Your task to perform on an android device: Is it going to rain this weekend? Image 0: 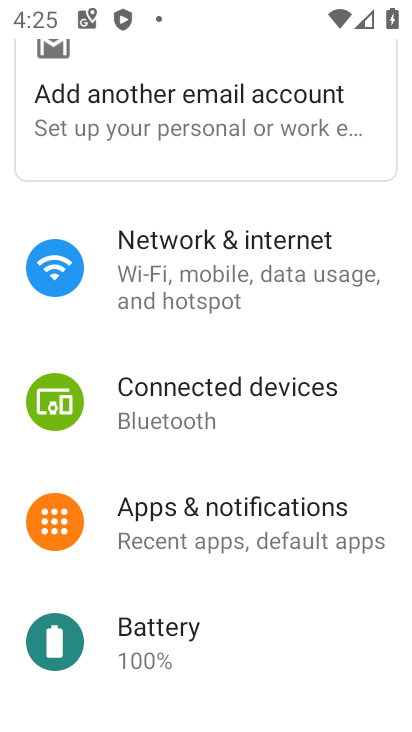
Step 0: press home button
Your task to perform on an android device: Is it going to rain this weekend? Image 1: 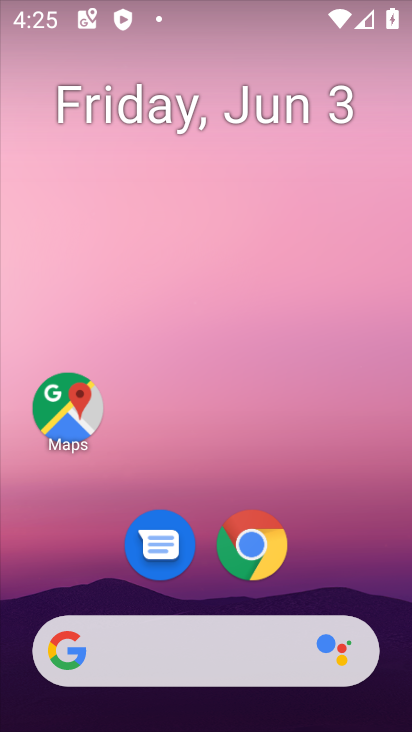
Step 1: drag from (4, 285) to (382, 276)
Your task to perform on an android device: Is it going to rain this weekend? Image 2: 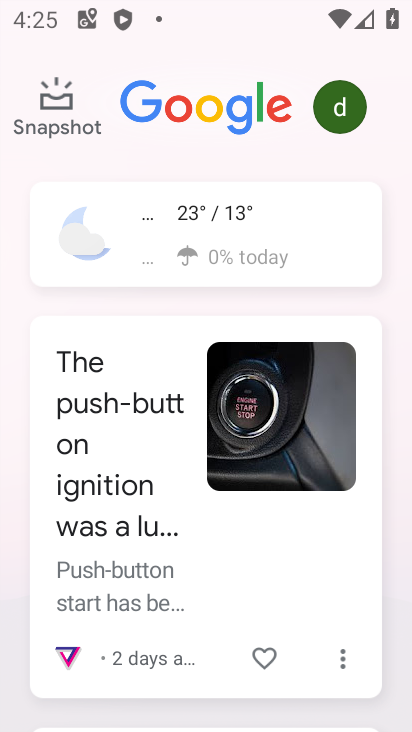
Step 2: click (240, 261)
Your task to perform on an android device: Is it going to rain this weekend? Image 3: 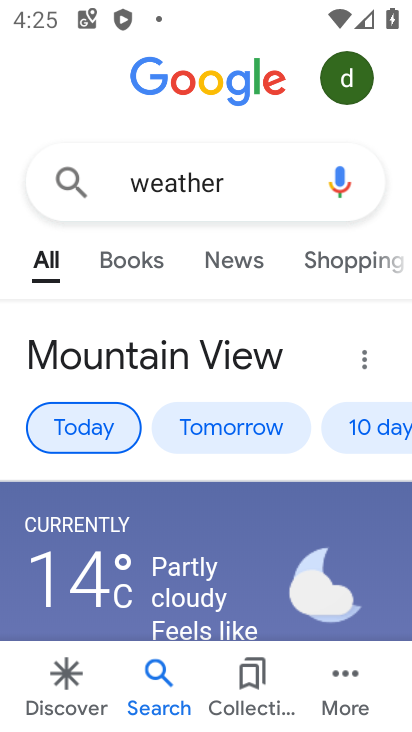
Step 3: click (346, 427)
Your task to perform on an android device: Is it going to rain this weekend? Image 4: 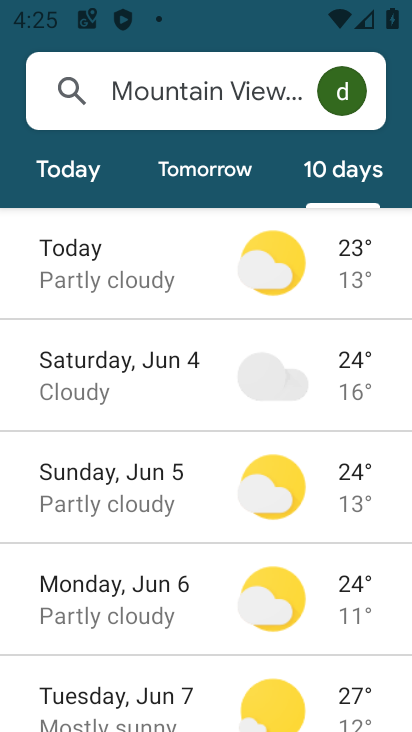
Step 4: task complete